Your task to perform on an android device: open app "Google Docs" (install if not already installed) Image 0: 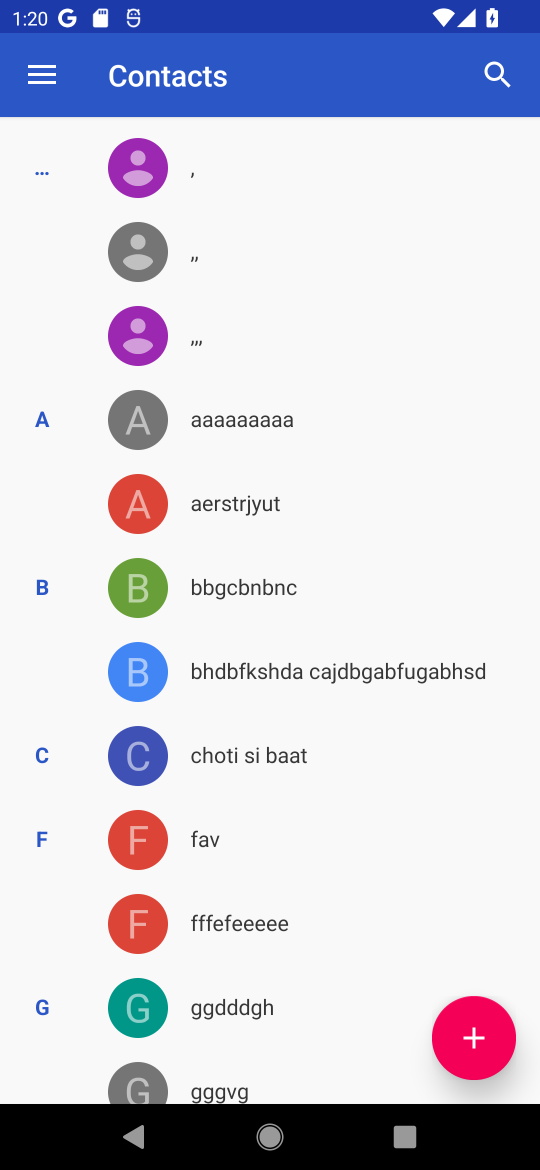
Step 0: press back button
Your task to perform on an android device: open app "Google Docs" (install if not already installed) Image 1: 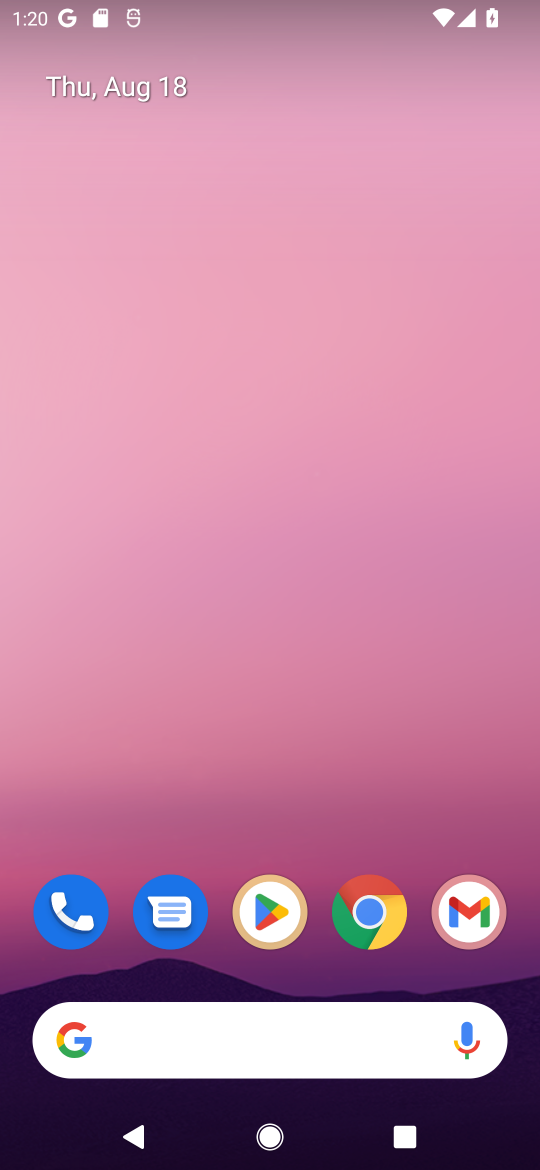
Step 1: click (266, 918)
Your task to perform on an android device: open app "Google Docs" (install if not already installed) Image 2: 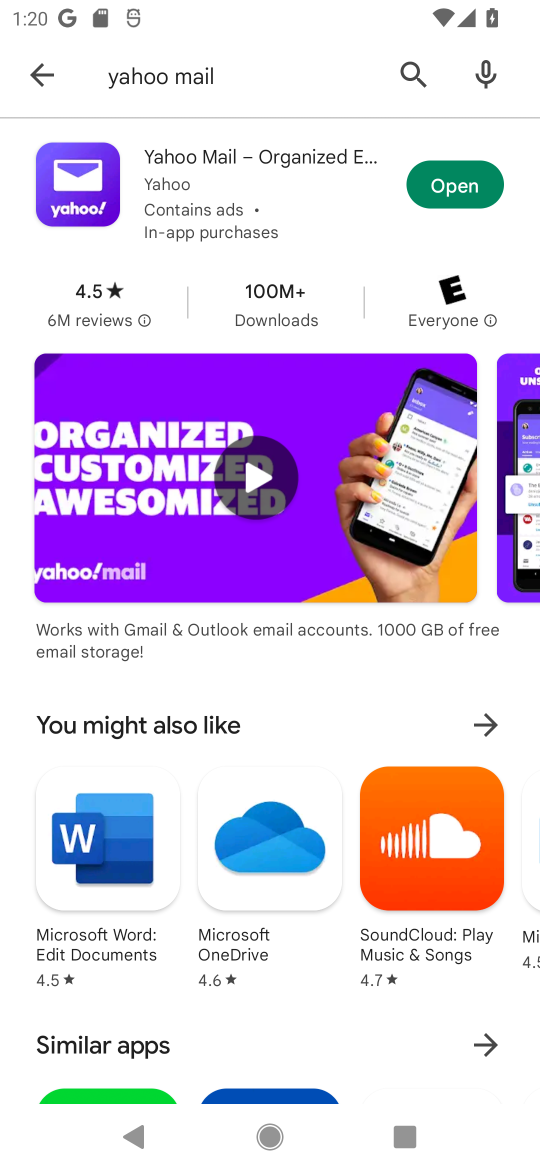
Step 2: click (419, 67)
Your task to perform on an android device: open app "Google Docs" (install if not already installed) Image 3: 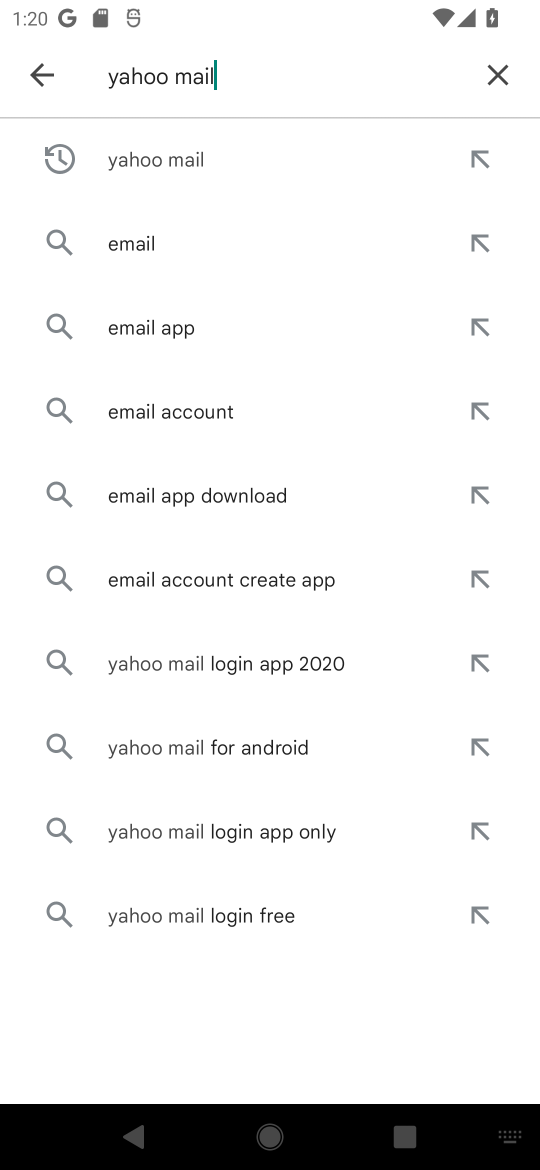
Step 3: click (502, 67)
Your task to perform on an android device: open app "Google Docs" (install if not already installed) Image 4: 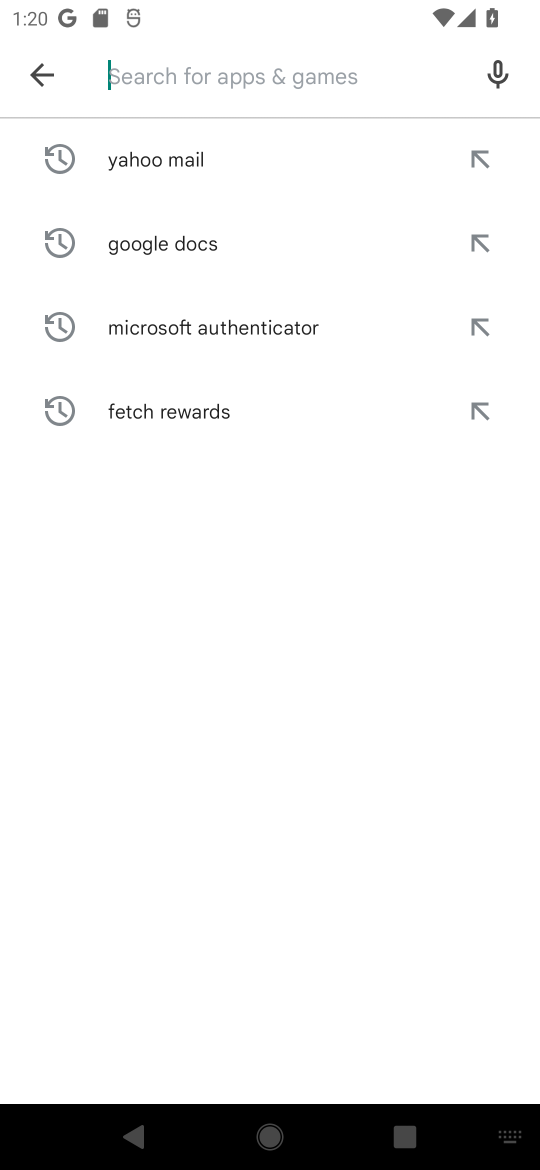
Step 4: click (179, 83)
Your task to perform on an android device: open app "Google Docs" (install if not already installed) Image 5: 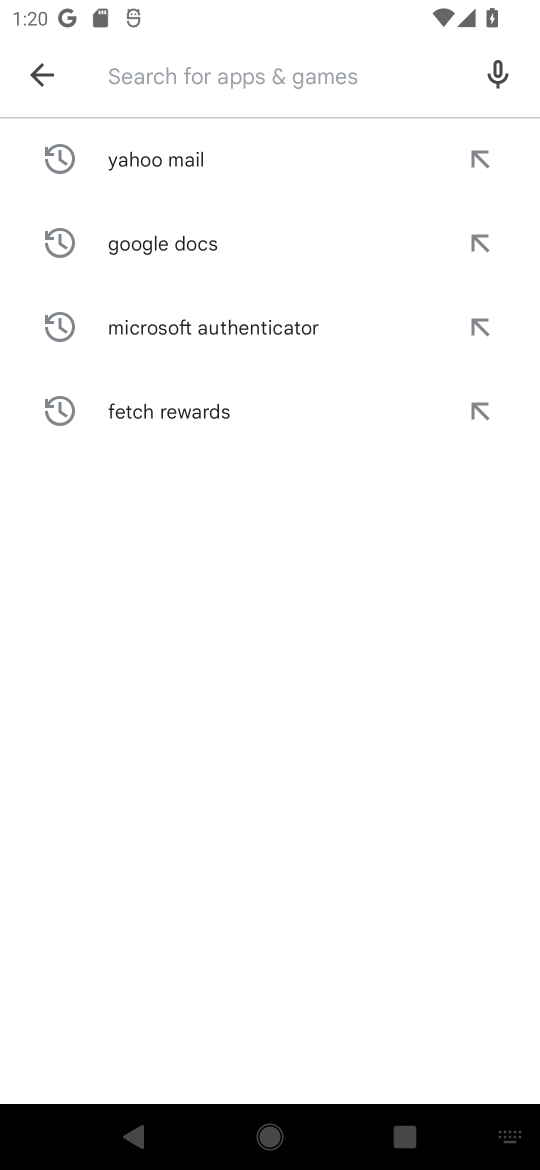
Step 5: type "Google Docs"
Your task to perform on an android device: open app "Google Docs" (install if not already installed) Image 6: 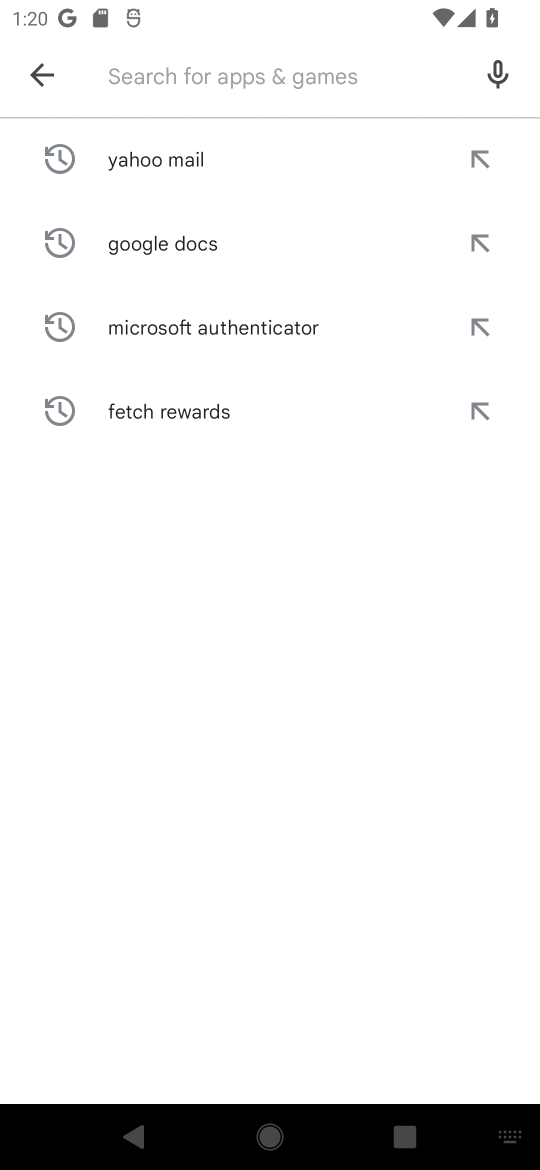
Step 6: click (263, 679)
Your task to perform on an android device: open app "Google Docs" (install if not already installed) Image 7: 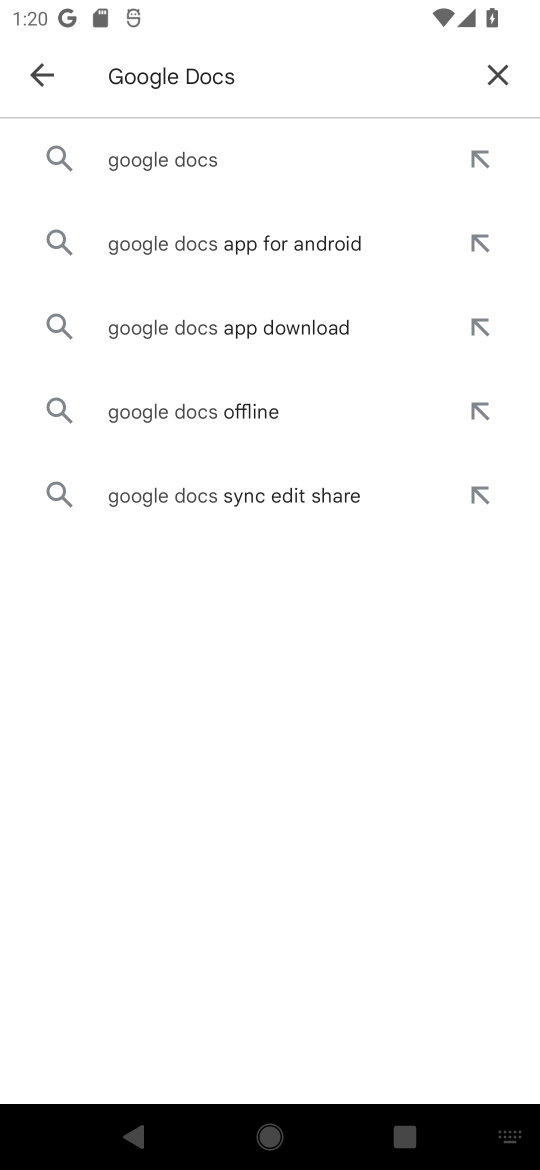
Step 7: click (214, 156)
Your task to perform on an android device: open app "Google Docs" (install if not already installed) Image 8: 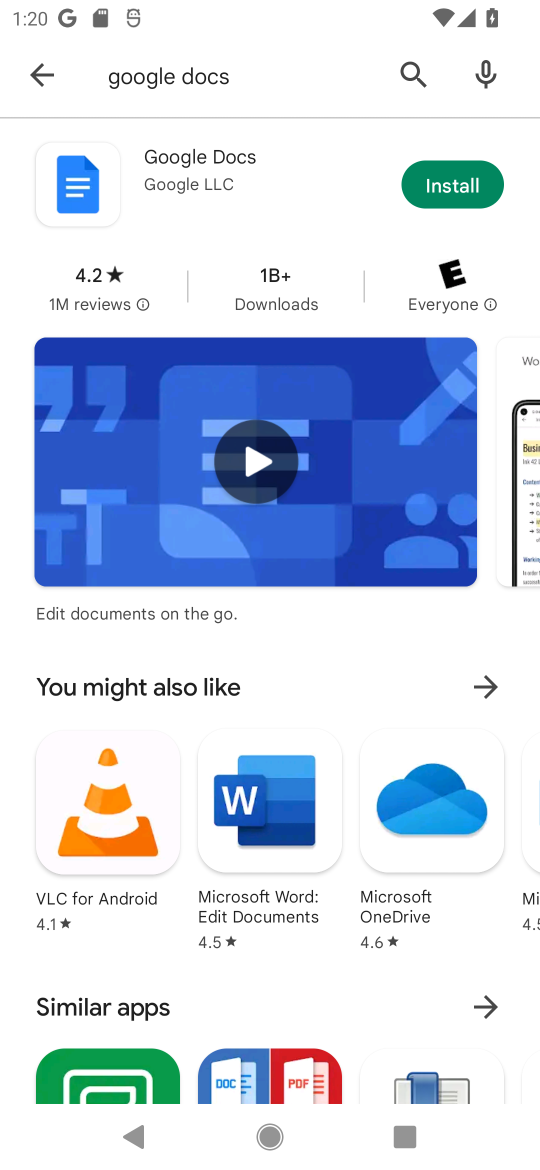
Step 8: click (455, 177)
Your task to perform on an android device: open app "Google Docs" (install if not already installed) Image 9: 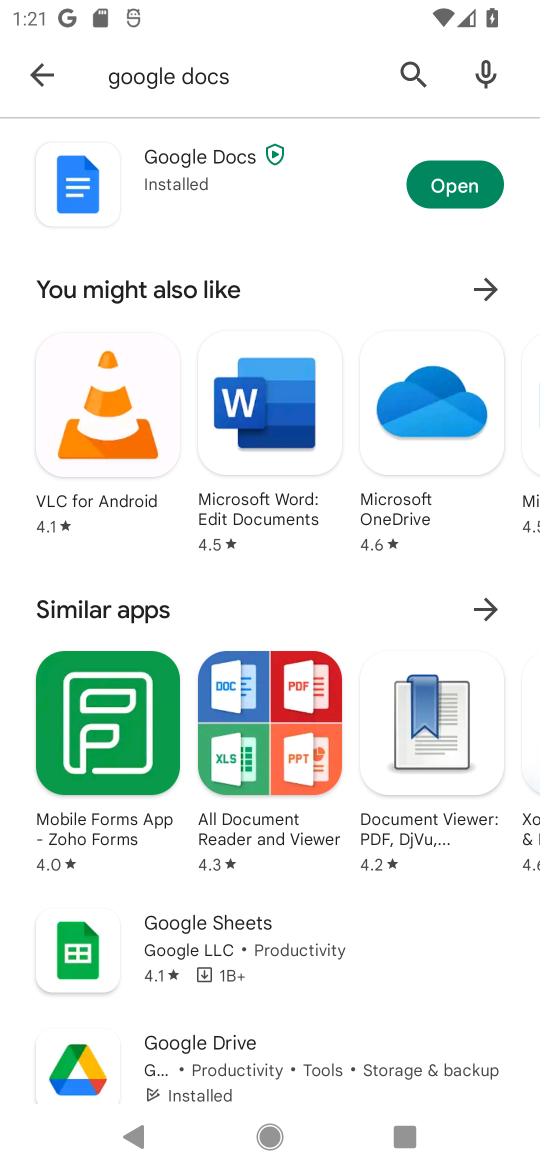
Step 9: click (462, 189)
Your task to perform on an android device: open app "Google Docs" (install if not already installed) Image 10: 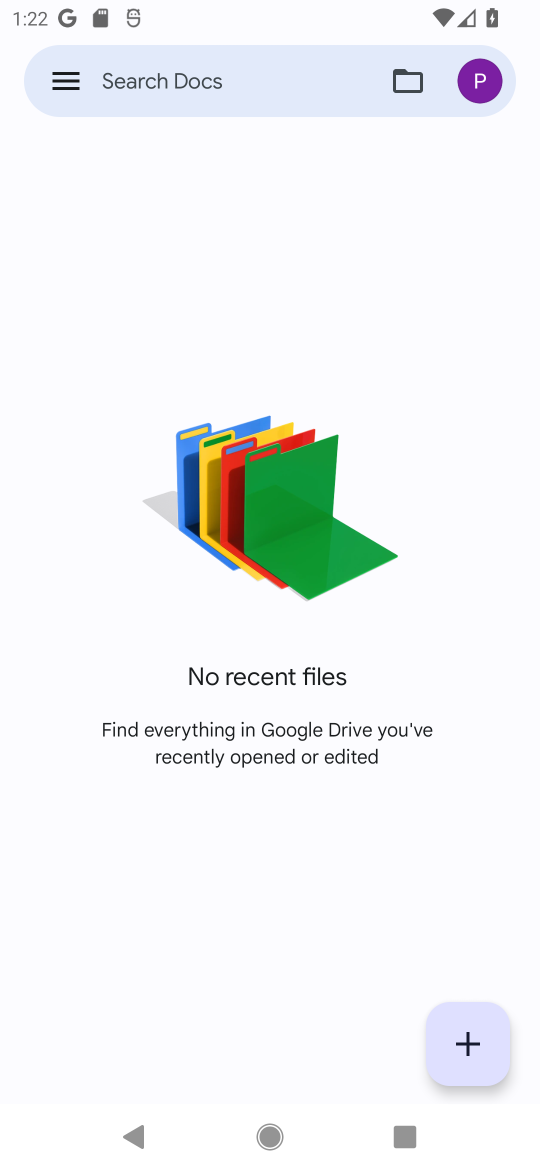
Step 10: task complete